Your task to perform on an android device: snooze an email in the gmail app Image 0: 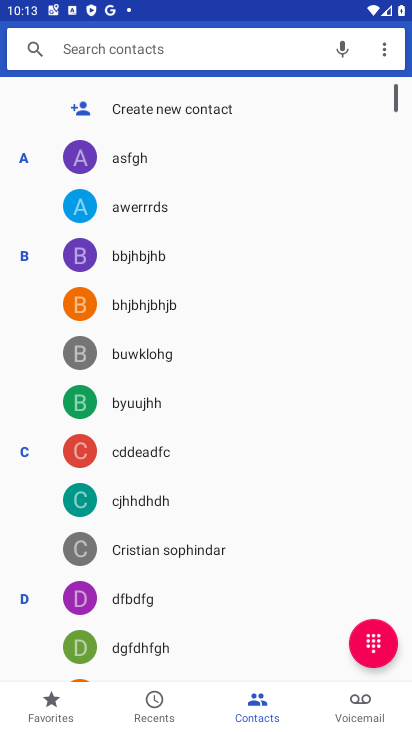
Step 0: press home button
Your task to perform on an android device: snooze an email in the gmail app Image 1: 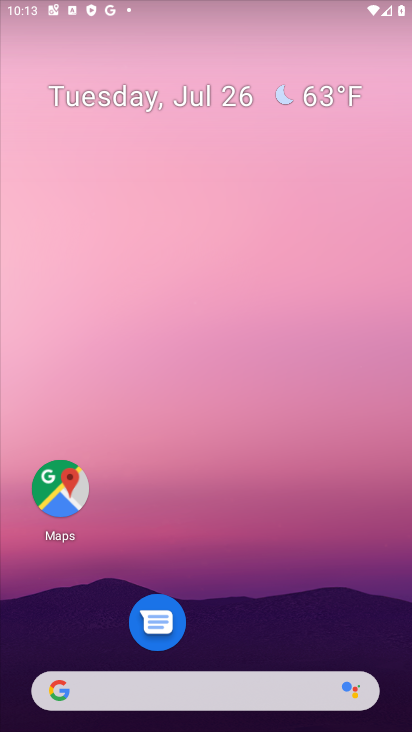
Step 1: drag from (252, 624) to (303, 2)
Your task to perform on an android device: snooze an email in the gmail app Image 2: 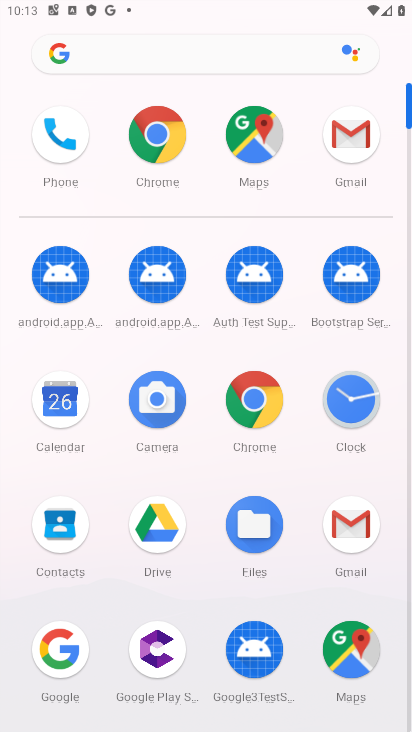
Step 2: click (345, 147)
Your task to perform on an android device: snooze an email in the gmail app Image 3: 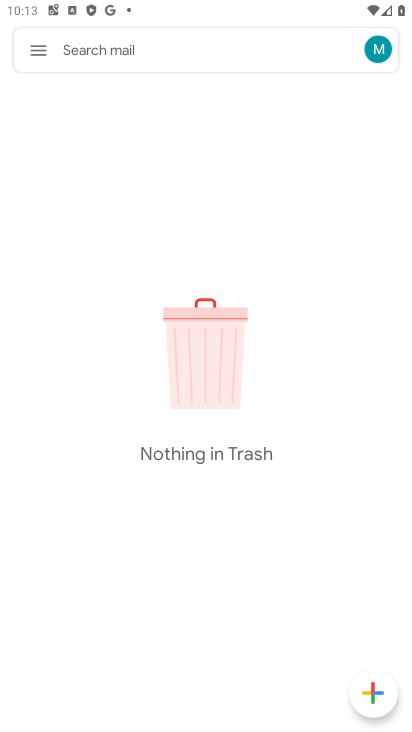
Step 3: click (48, 58)
Your task to perform on an android device: snooze an email in the gmail app Image 4: 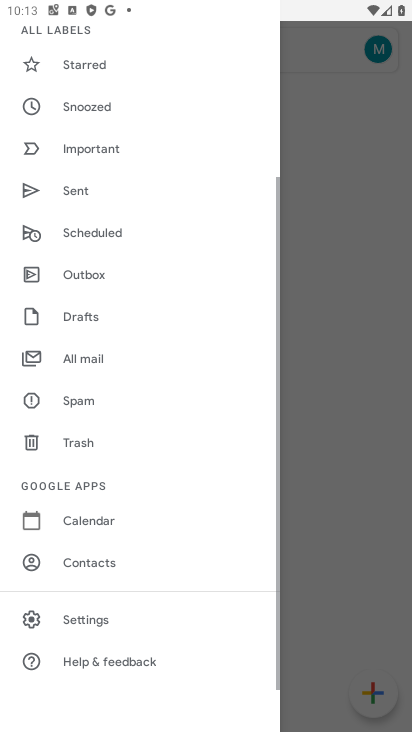
Step 4: drag from (103, 153) to (134, 702)
Your task to perform on an android device: snooze an email in the gmail app Image 5: 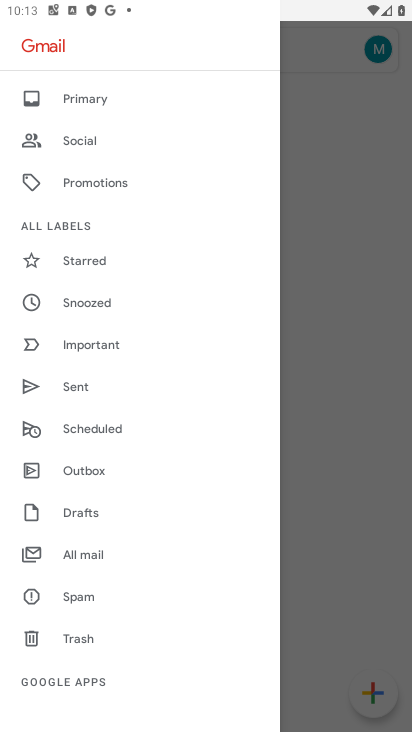
Step 5: click (73, 561)
Your task to perform on an android device: snooze an email in the gmail app Image 6: 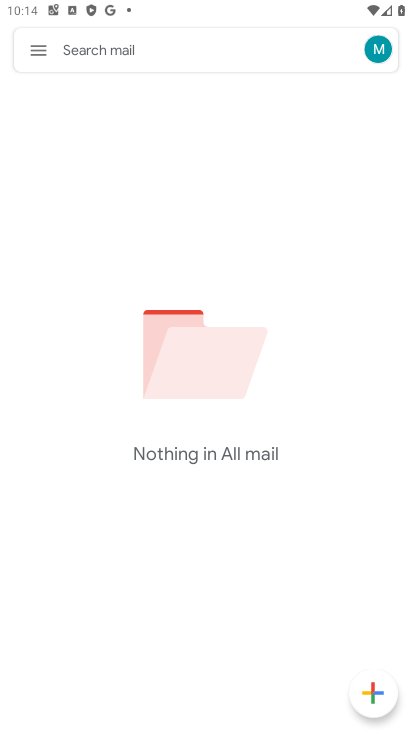
Step 6: task complete